Your task to perform on an android device: turn off priority inbox in the gmail app Image 0: 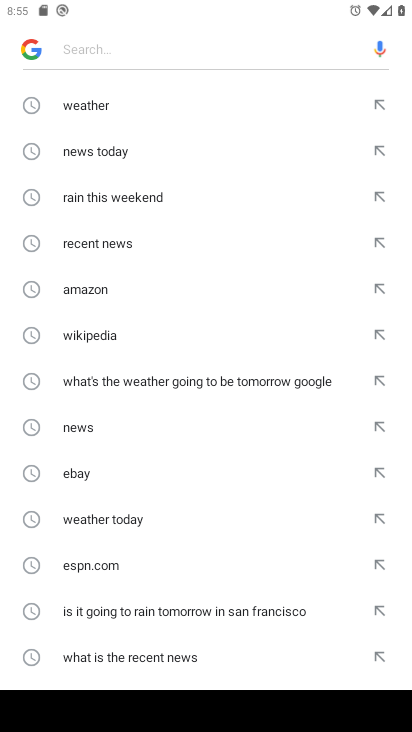
Step 0: press home button
Your task to perform on an android device: turn off priority inbox in the gmail app Image 1: 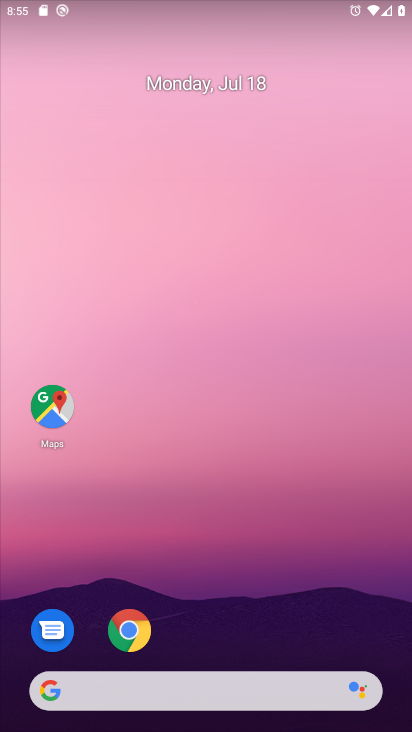
Step 1: drag from (193, 632) to (196, 190)
Your task to perform on an android device: turn off priority inbox in the gmail app Image 2: 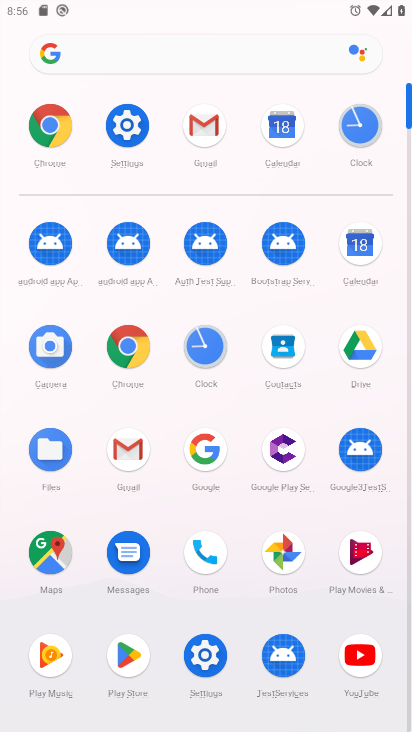
Step 2: click (213, 119)
Your task to perform on an android device: turn off priority inbox in the gmail app Image 3: 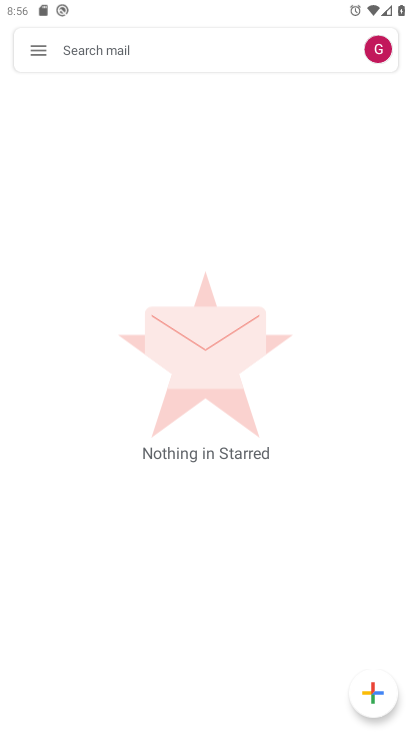
Step 3: click (33, 58)
Your task to perform on an android device: turn off priority inbox in the gmail app Image 4: 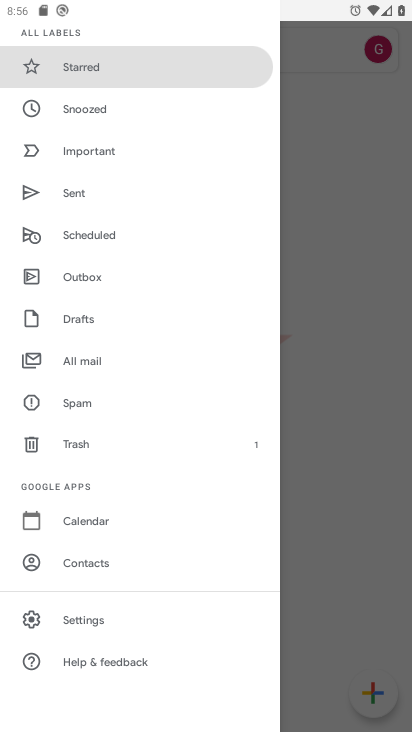
Step 4: click (72, 613)
Your task to perform on an android device: turn off priority inbox in the gmail app Image 5: 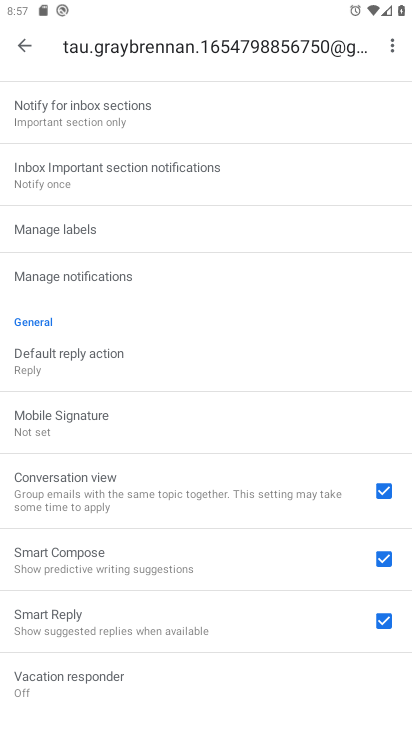
Step 5: drag from (133, 285) to (152, 561)
Your task to perform on an android device: turn off priority inbox in the gmail app Image 6: 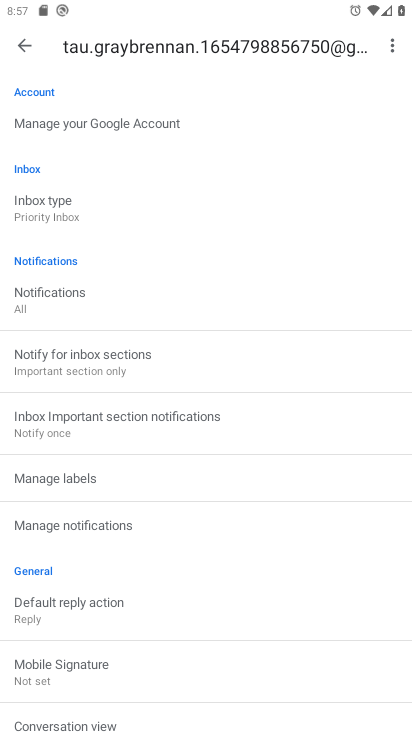
Step 6: click (99, 196)
Your task to perform on an android device: turn off priority inbox in the gmail app Image 7: 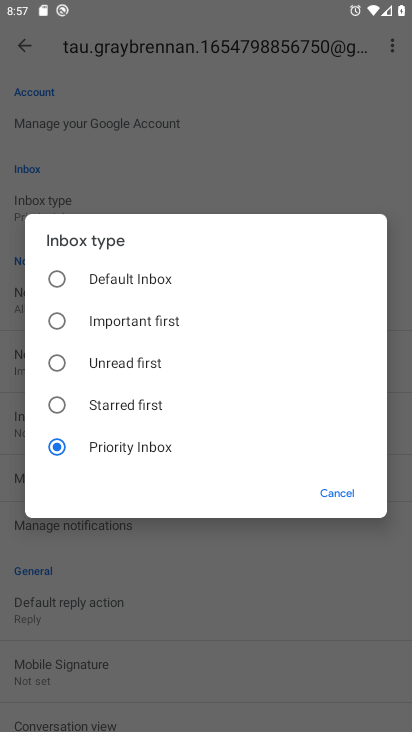
Step 7: click (113, 288)
Your task to perform on an android device: turn off priority inbox in the gmail app Image 8: 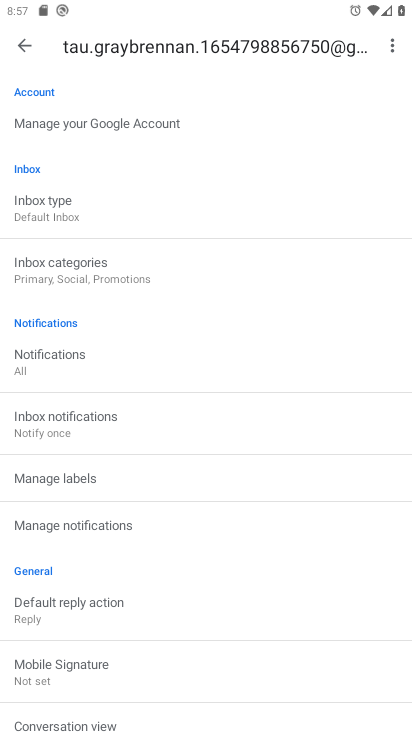
Step 8: task complete